Your task to perform on an android device: turn on notifications settings in the gmail app Image 0: 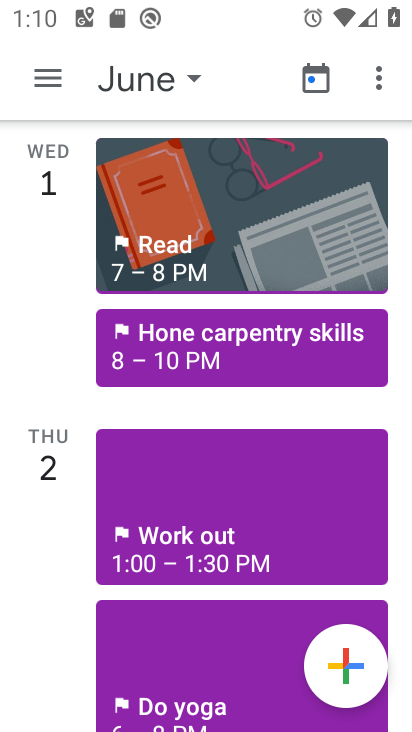
Step 0: press home button
Your task to perform on an android device: turn on notifications settings in the gmail app Image 1: 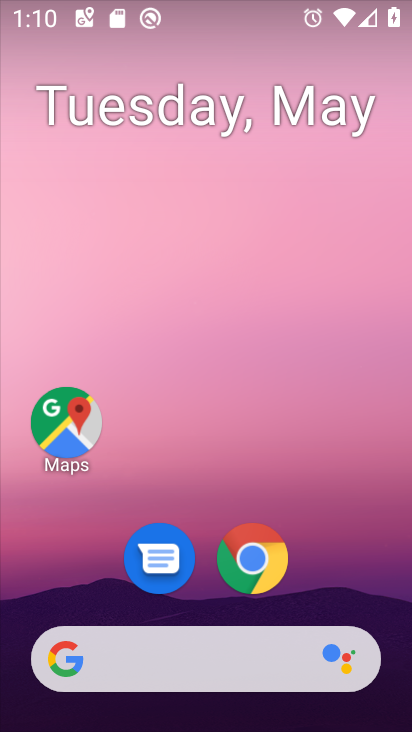
Step 1: drag from (339, 603) to (274, 125)
Your task to perform on an android device: turn on notifications settings in the gmail app Image 2: 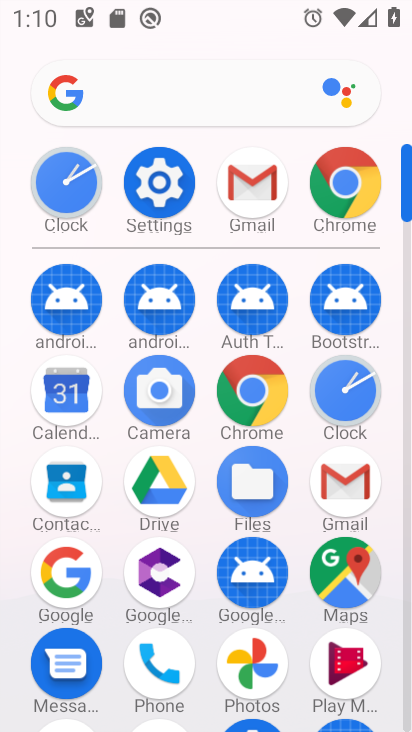
Step 2: click (265, 179)
Your task to perform on an android device: turn on notifications settings in the gmail app Image 3: 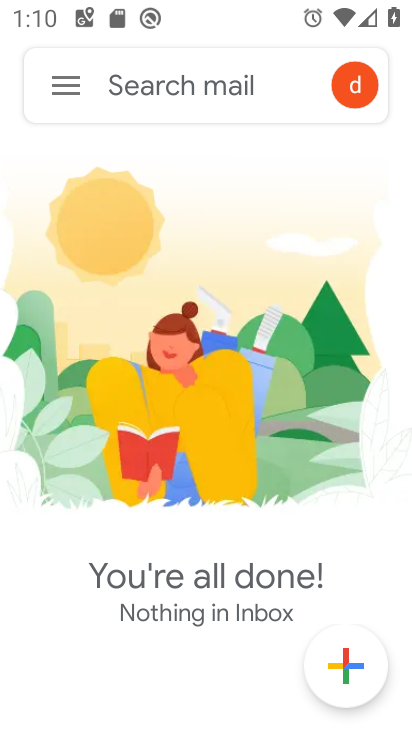
Step 3: click (69, 84)
Your task to perform on an android device: turn on notifications settings in the gmail app Image 4: 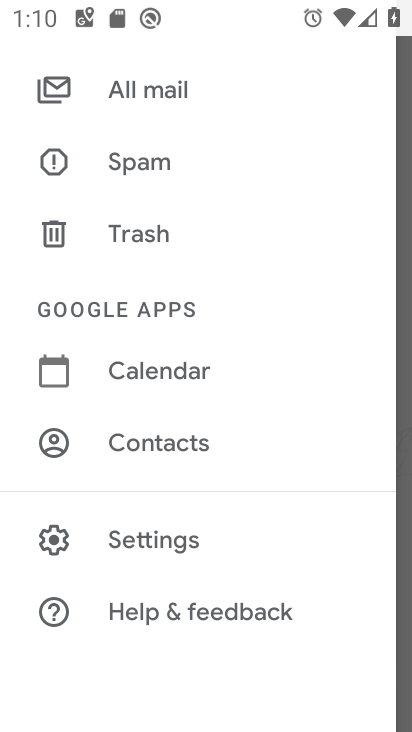
Step 4: click (184, 548)
Your task to perform on an android device: turn on notifications settings in the gmail app Image 5: 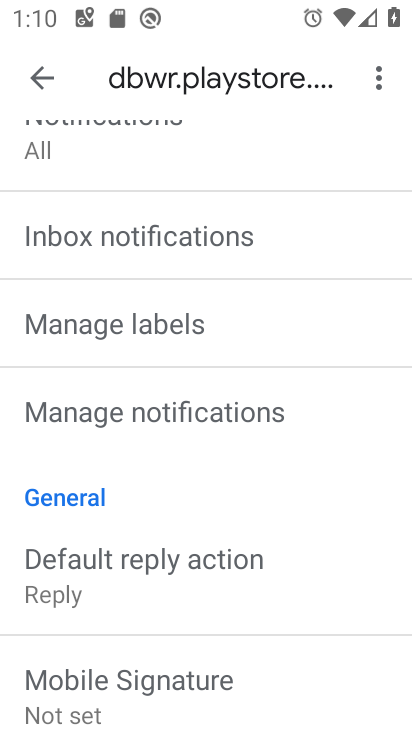
Step 5: click (238, 422)
Your task to perform on an android device: turn on notifications settings in the gmail app Image 6: 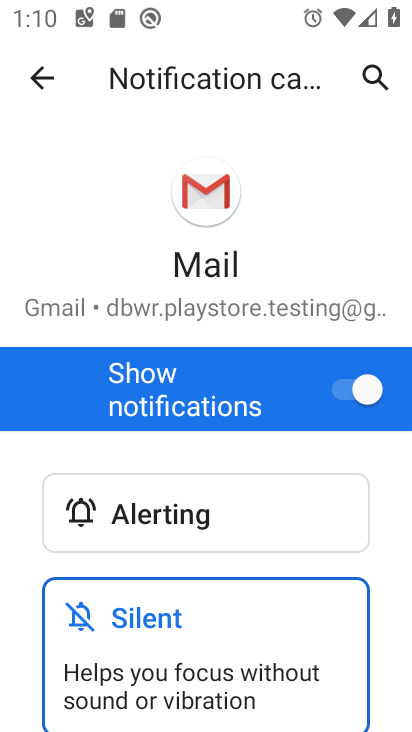
Step 6: task complete